Your task to perform on an android device: star an email in the gmail app Image 0: 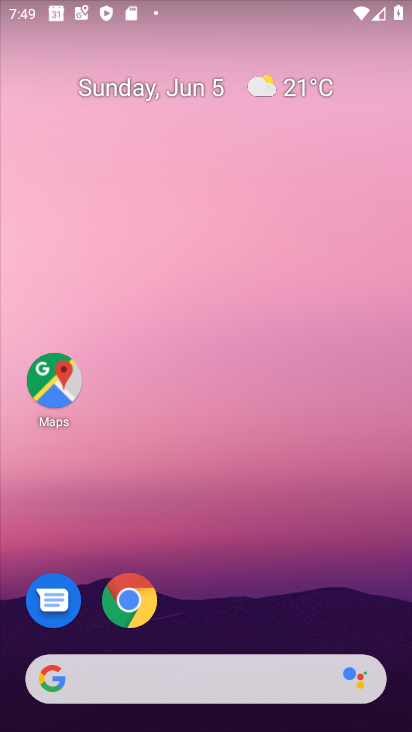
Step 0: drag from (153, 730) to (133, 74)
Your task to perform on an android device: star an email in the gmail app Image 1: 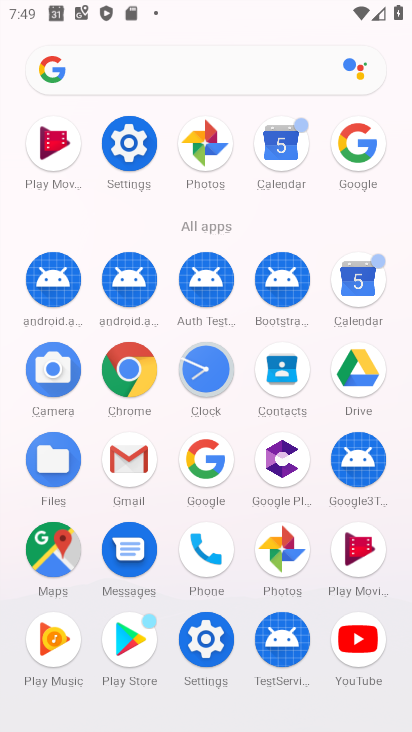
Step 1: click (119, 477)
Your task to perform on an android device: star an email in the gmail app Image 2: 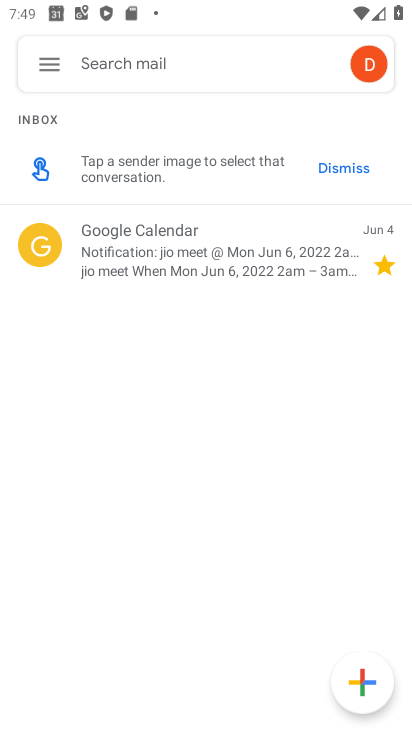
Step 2: click (252, 244)
Your task to perform on an android device: star an email in the gmail app Image 3: 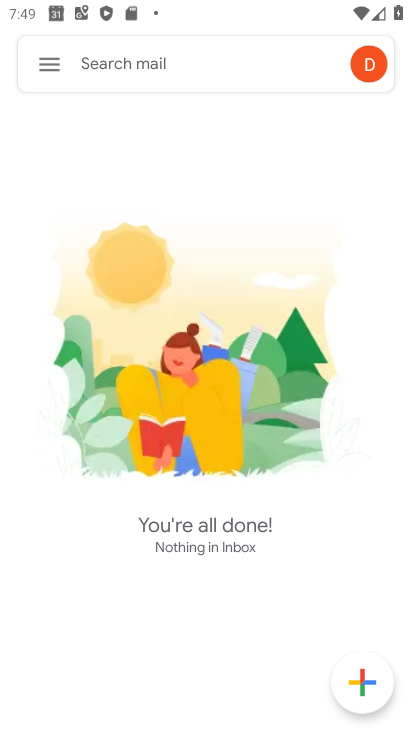
Step 3: click (52, 63)
Your task to perform on an android device: star an email in the gmail app Image 4: 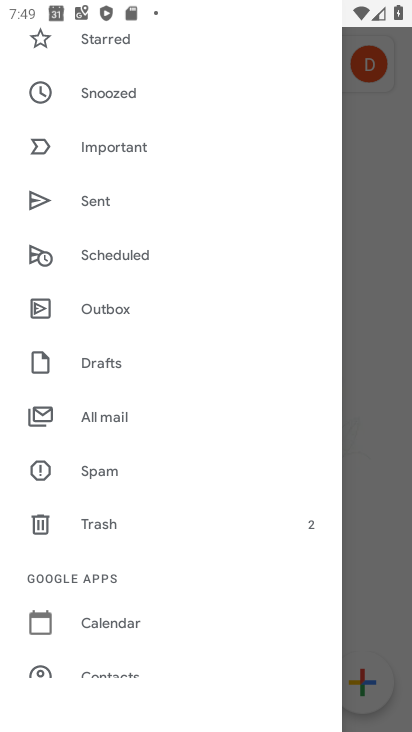
Step 4: click (128, 429)
Your task to perform on an android device: star an email in the gmail app Image 5: 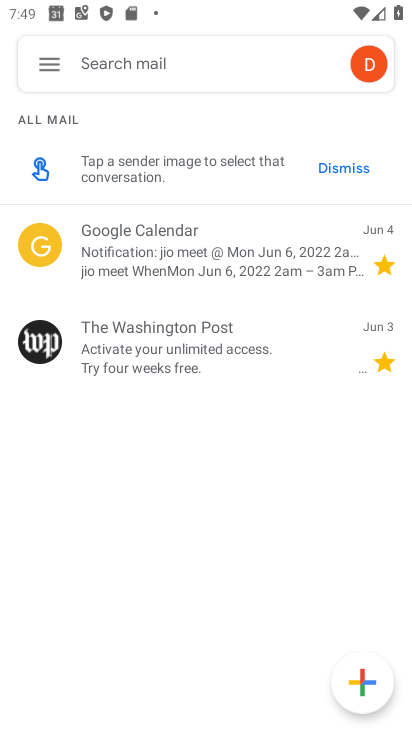
Step 5: click (156, 277)
Your task to perform on an android device: star an email in the gmail app Image 6: 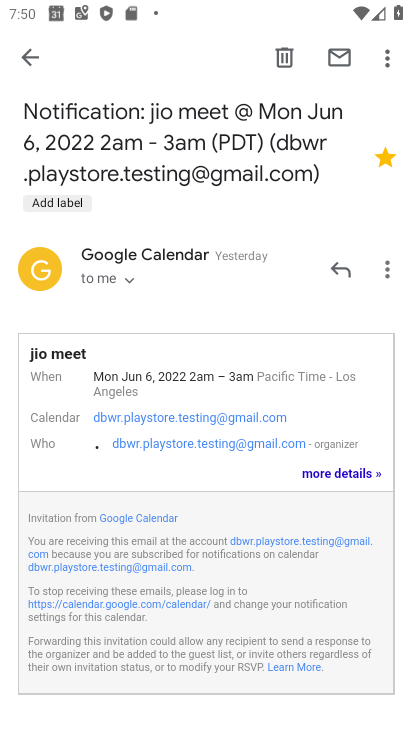
Step 6: task complete